Your task to perform on an android device: Go to ESPN.com Image 0: 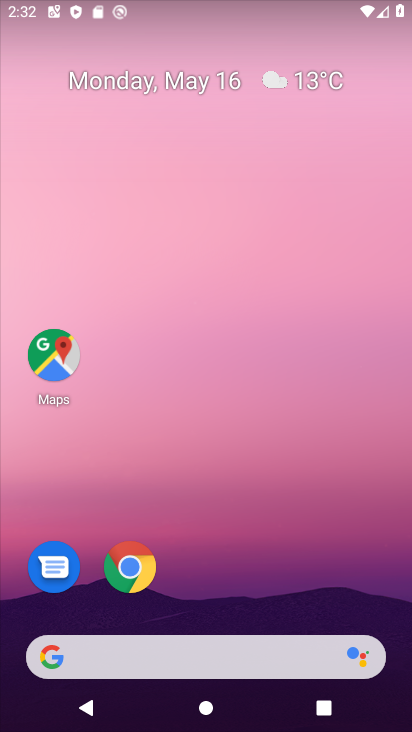
Step 0: click (138, 563)
Your task to perform on an android device: Go to ESPN.com Image 1: 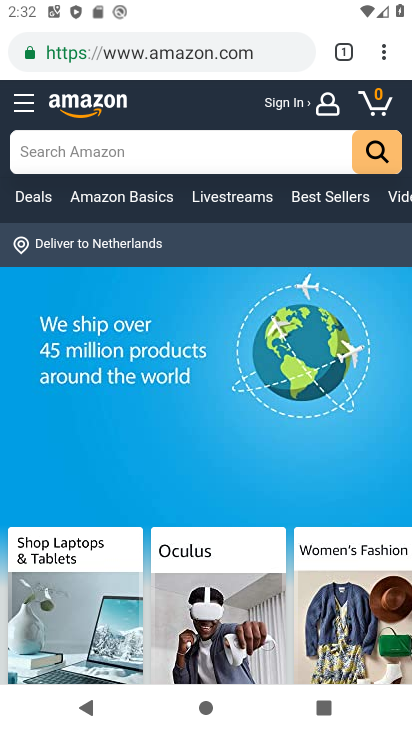
Step 1: click (244, 49)
Your task to perform on an android device: Go to ESPN.com Image 2: 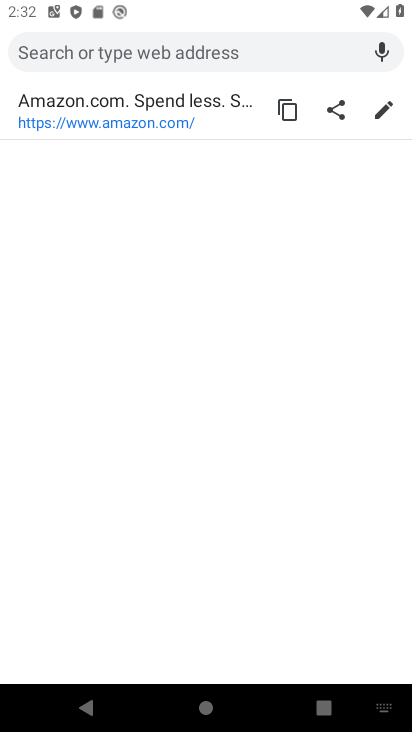
Step 2: type "espn.com"
Your task to perform on an android device: Go to ESPN.com Image 3: 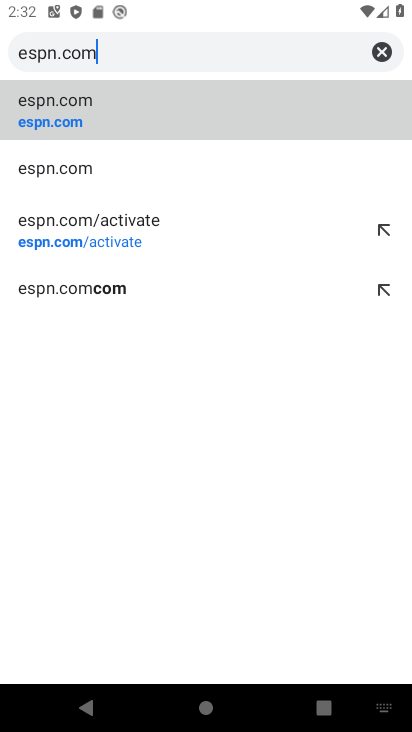
Step 3: click (62, 130)
Your task to perform on an android device: Go to ESPN.com Image 4: 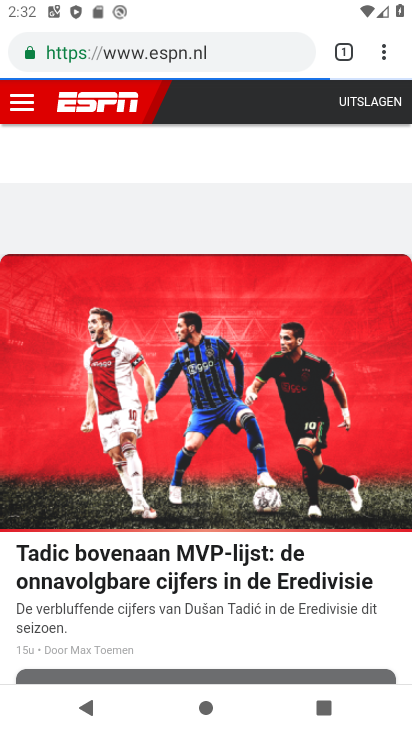
Step 4: task complete